Your task to perform on an android device: Open Google Maps and go to "Timeline" Image 0: 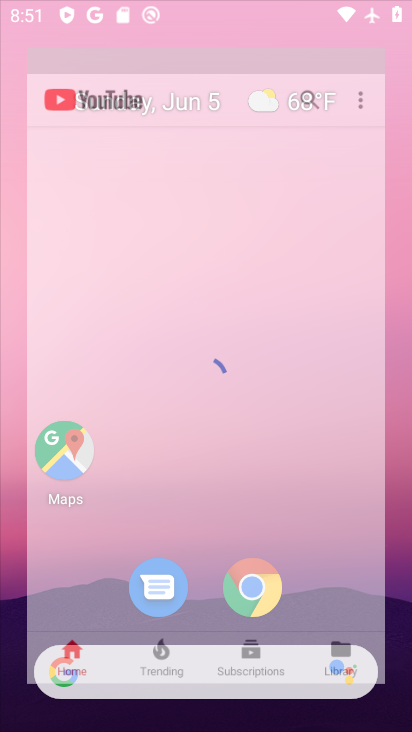
Step 0: drag from (331, 607) to (252, 209)
Your task to perform on an android device: Open Google Maps and go to "Timeline" Image 1: 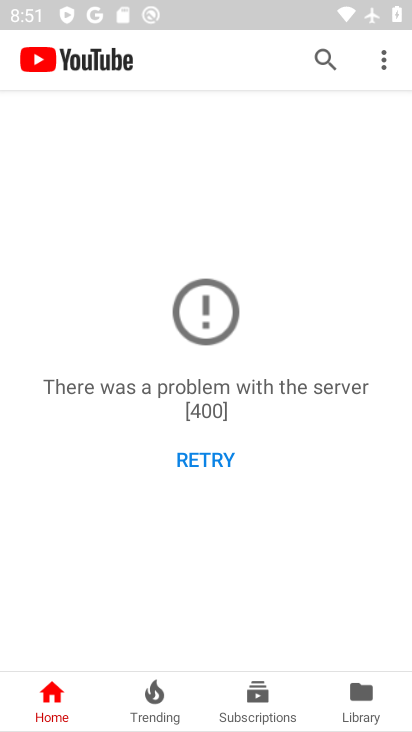
Step 1: press home button
Your task to perform on an android device: Open Google Maps and go to "Timeline" Image 2: 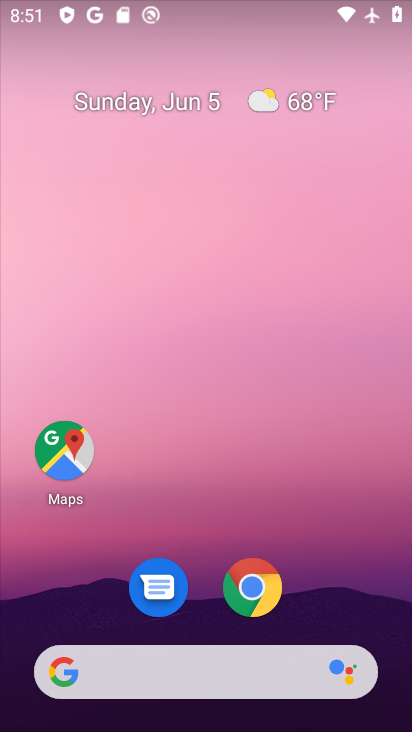
Step 2: drag from (331, 558) to (276, 112)
Your task to perform on an android device: Open Google Maps and go to "Timeline" Image 3: 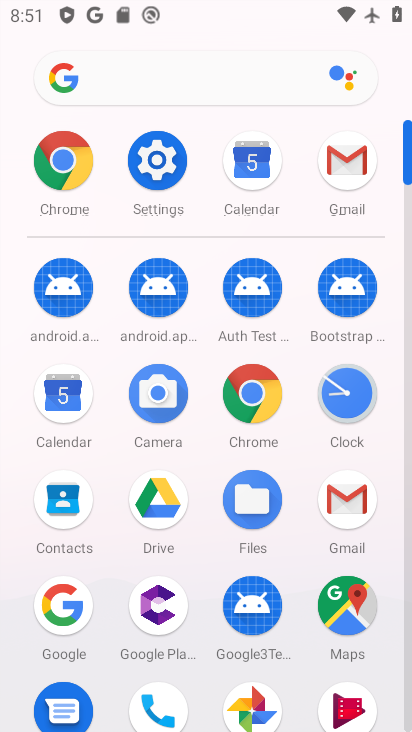
Step 3: click (360, 596)
Your task to perform on an android device: Open Google Maps and go to "Timeline" Image 4: 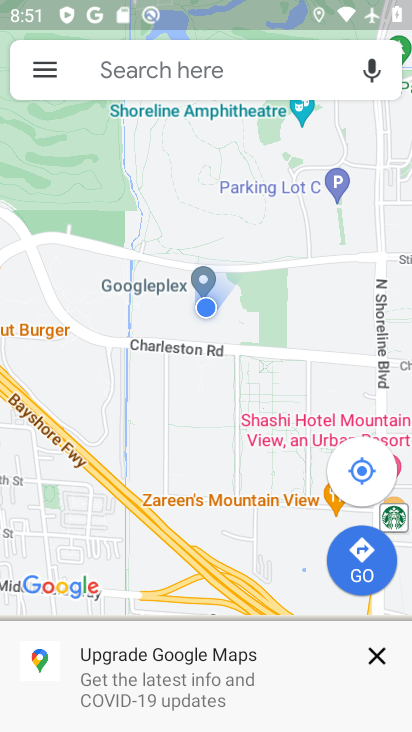
Step 4: click (30, 43)
Your task to perform on an android device: Open Google Maps and go to "Timeline" Image 5: 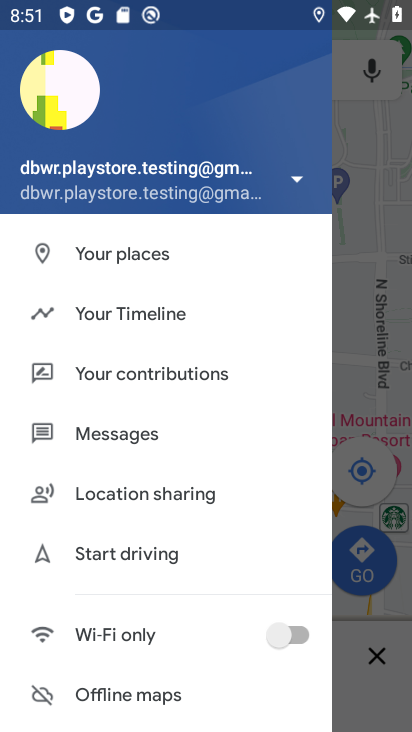
Step 5: click (394, 214)
Your task to perform on an android device: Open Google Maps and go to "Timeline" Image 6: 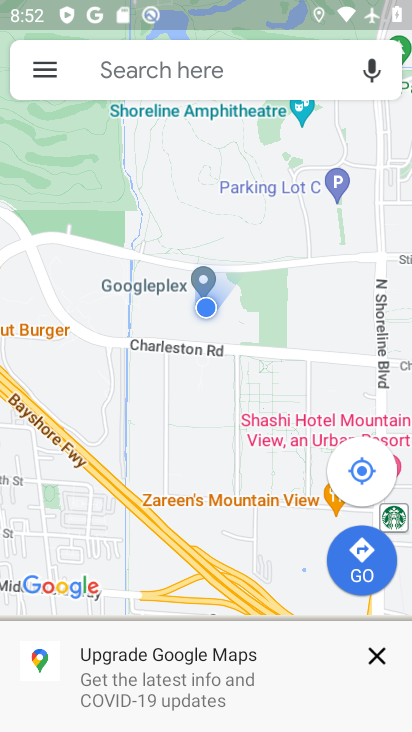
Step 6: click (44, 65)
Your task to perform on an android device: Open Google Maps and go to "Timeline" Image 7: 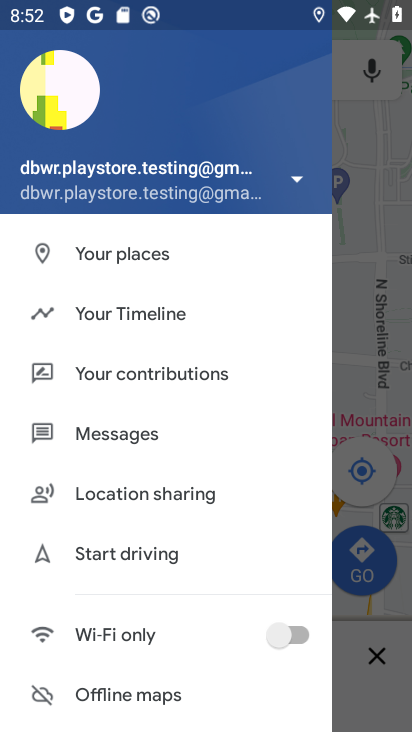
Step 7: click (131, 315)
Your task to perform on an android device: Open Google Maps and go to "Timeline" Image 8: 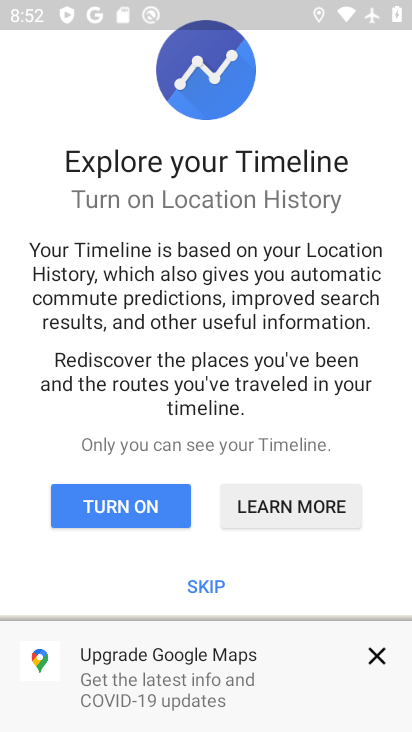
Step 8: click (211, 587)
Your task to perform on an android device: Open Google Maps and go to "Timeline" Image 9: 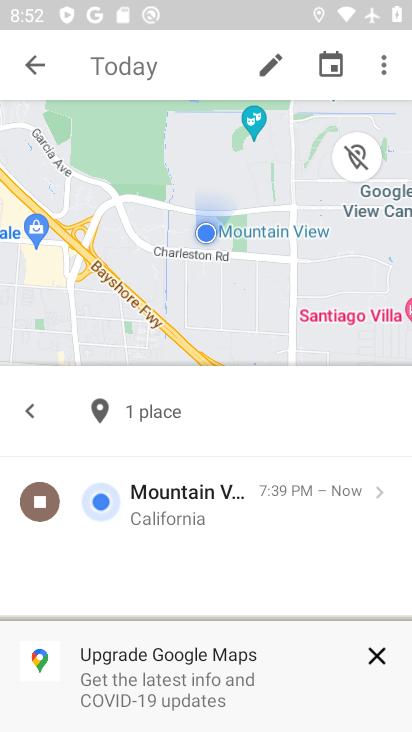
Step 9: task complete